Your task to perform on an android device: View the shopping cart on ebay. Add usb-c to usb-a to the cart on ebay, then select checkout. Image 0: 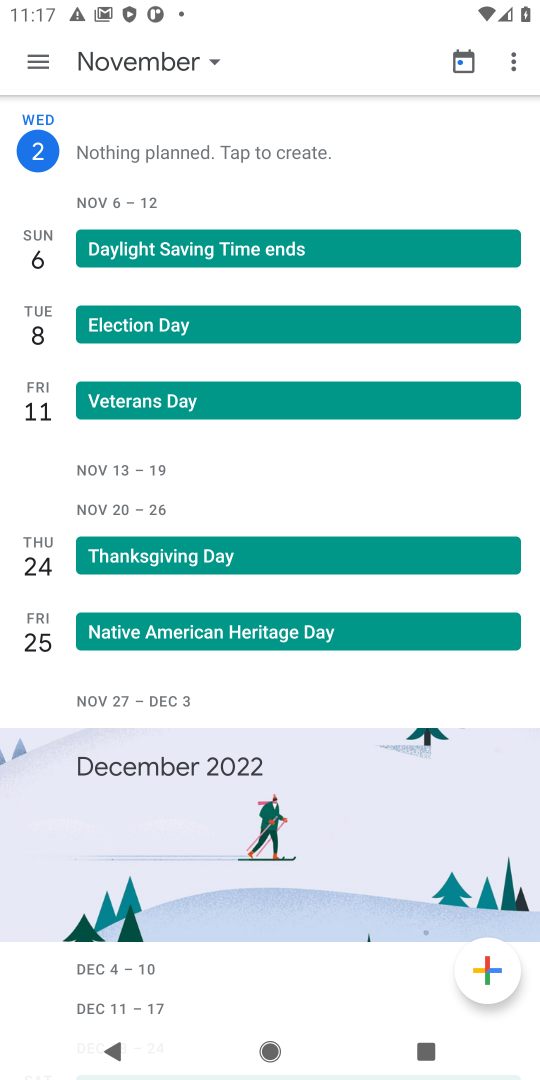
Step 0: press home button
Your task to perform on an android device: View the shopping cart on ebay. Add usb-c to usb-a to the cart on ebay, then select checkout. Image 1: 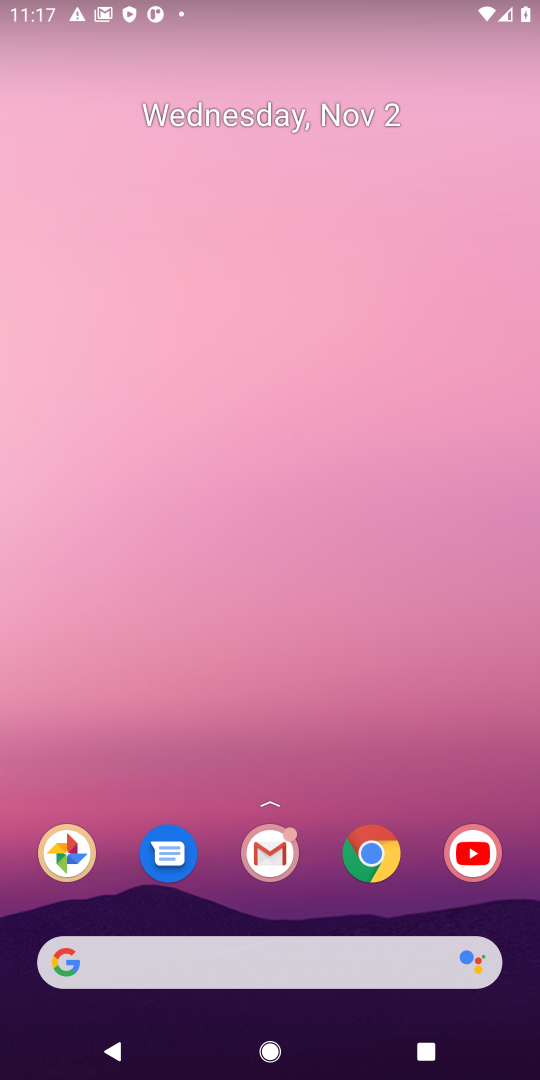
Step 1: click (379, 848)
Your task to perform on an android device: View the shopping cart on ebay. Add usb-c to usb-a to the cart on ebay, then select checkout. Image 2: 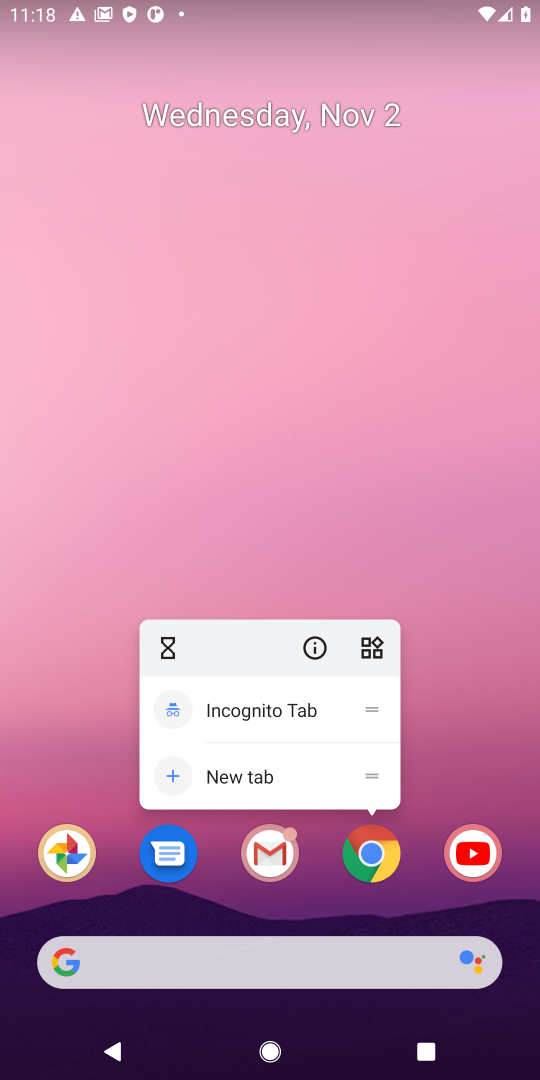
Step 2: click (369, 860)
Your task to perform on an android device: View the shopping cart on ebay. Add usb-c to usb-a to the cart on ebay, then select checkout. Image 3: 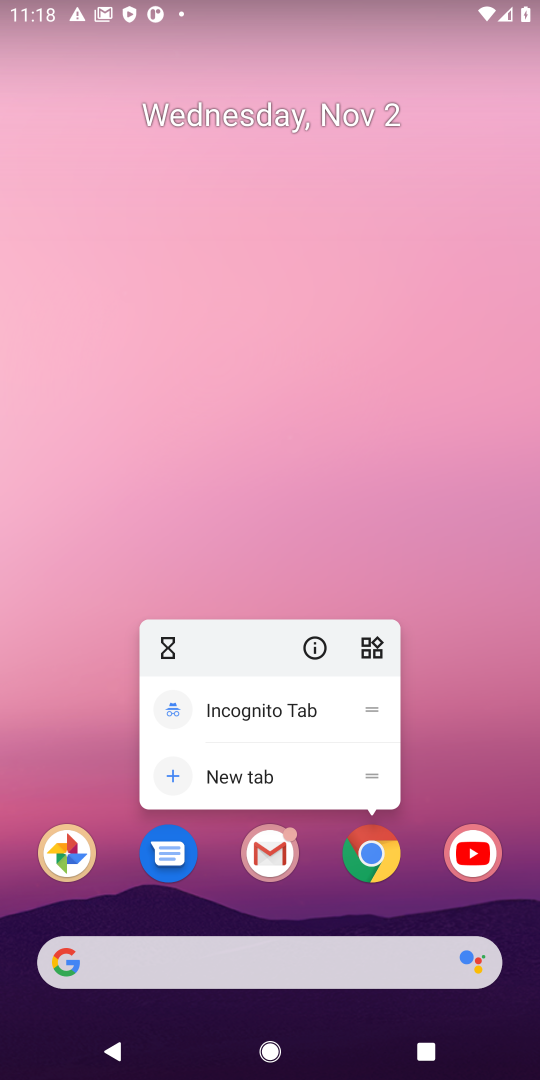
Step 3: click (369, 860)
Your task to perform on an android device: View the shopping cart on ebay. Add usb-c to usb-a to the cart on ebay, then select checkout. Image 4: 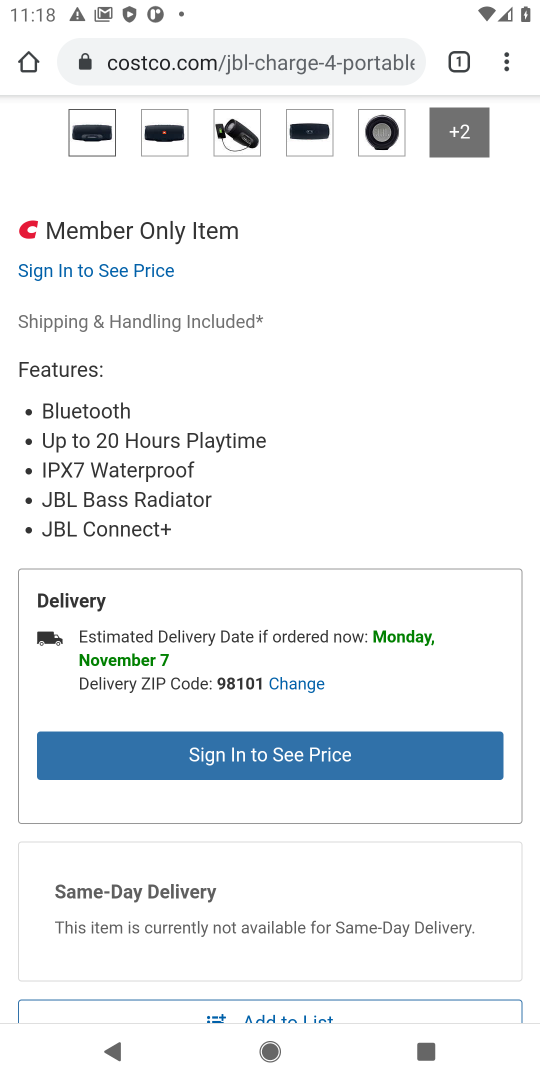
Step 4: click (294, 66)
Your task to perform on an android device: View the shopping cart on ebay. Add usb-c to usb-a to the cart on ebay, then select checkout. Image 5: 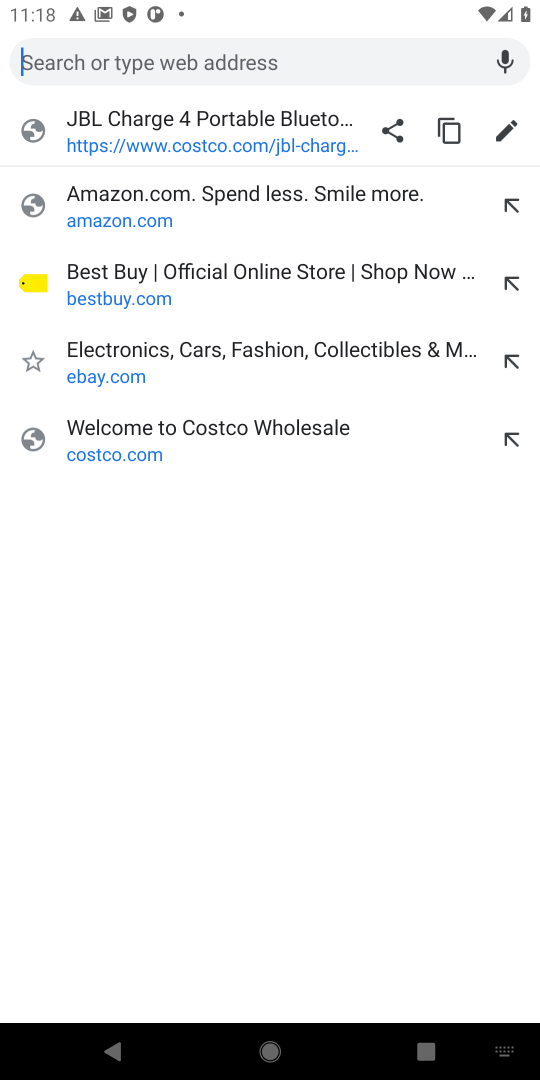
Step 5: click (91, 371)
Your task to perform on an android device: View the shopping cart on ebay. Add usb-c to usb-a to the cart on ebay, then select checkout. Image 6: 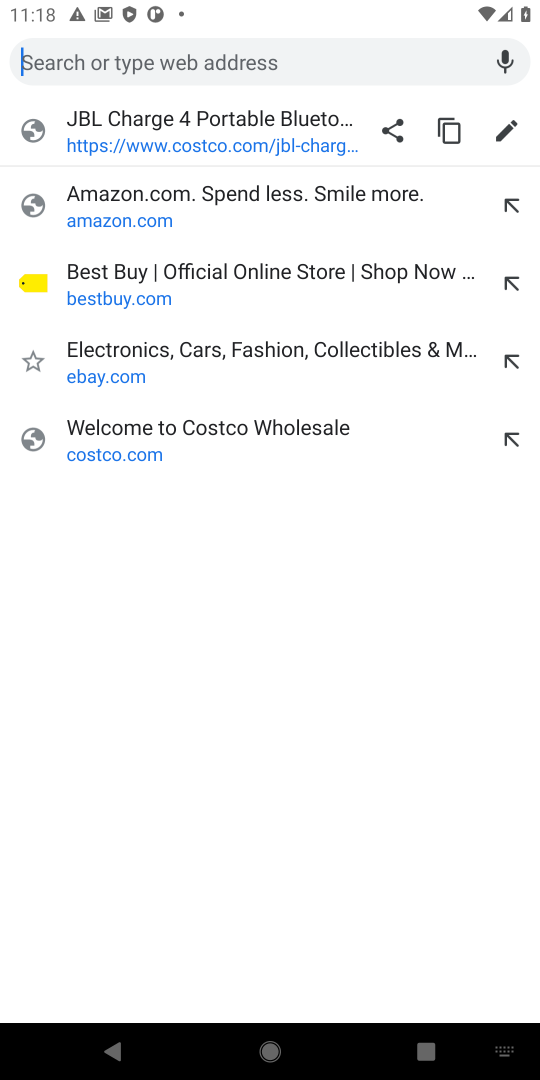
Step 6: click (125, 372)
Your task to perform on an android device: View the shopping cart on ebay. Add usb-c to usb-a to the cart on ebay, then select checkout. Image 7: 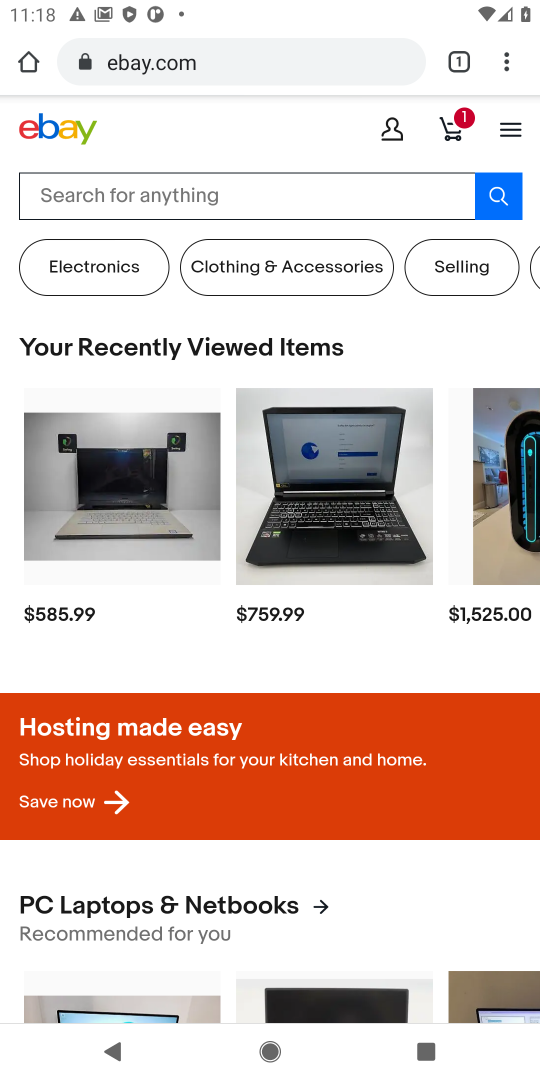
Step 7: click (98, 188)
Your task to perform on an android device: View the shopping cart on ebay. Add usb-c to usb-a to the cart on ebay, then select checkout. Image 8: 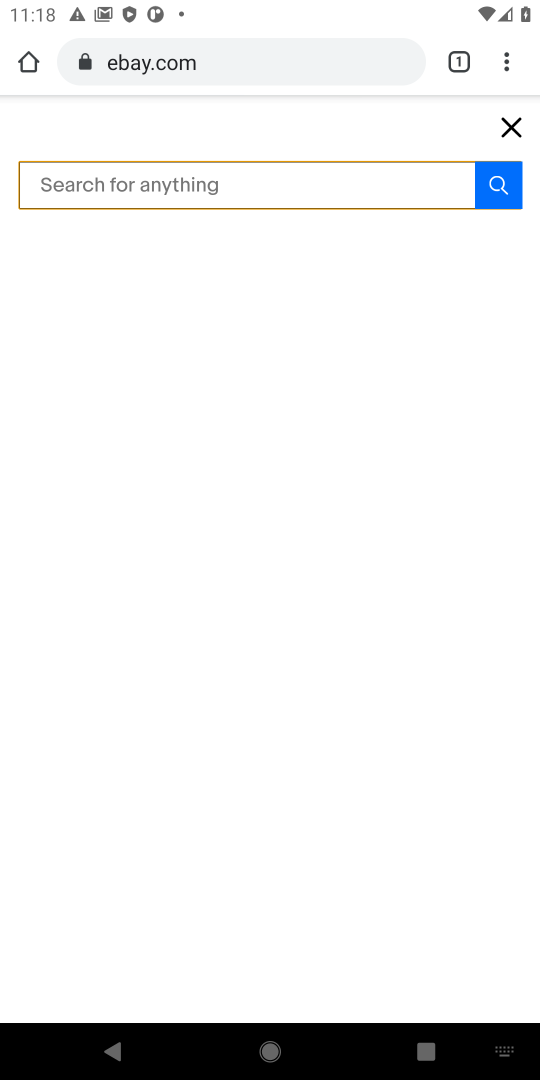
Step 8: type "usb-c to usb-a"
Your task to perform on an android device: View the shopping cart on ebay. Add usb-c to usb-a to the cart on ebay, then select checkout. Image 9: 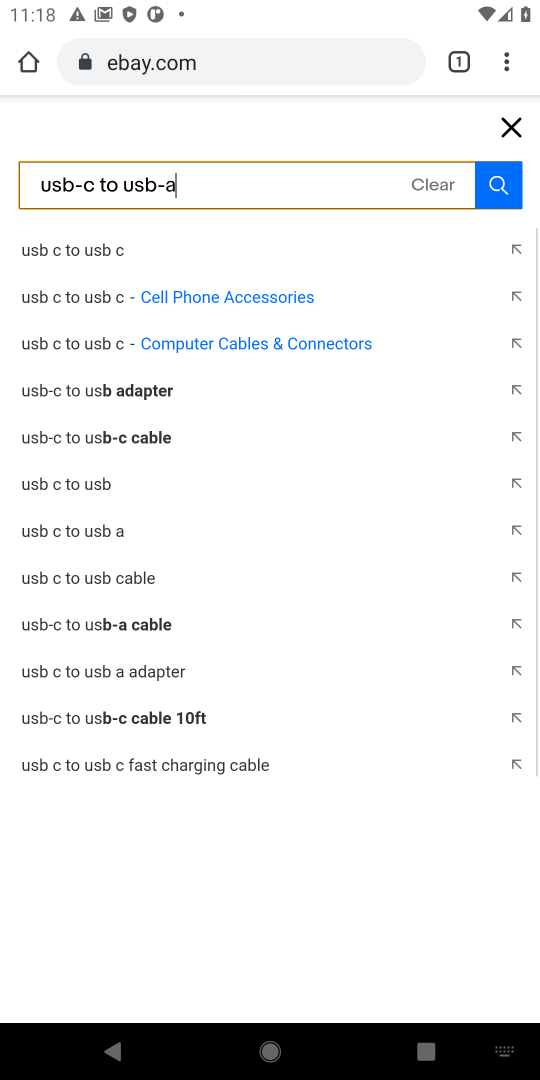
Step 9: press enter
Your task to perform on an android device: View the shopping cart on ebay. Add usb-c to usb-a to the cart on ebay, then select checkout. Image 10: 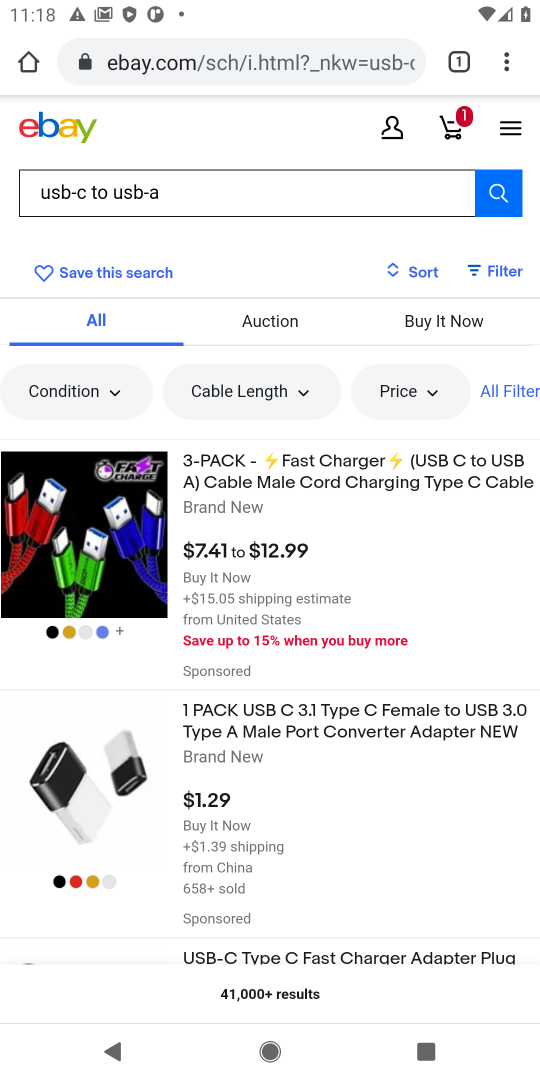
Step 10: click (306, 500)
Your task to perform on an android device: View the shopping cart on ebay. Add usb-c to usb-a to the cart on ebay, then select checkout. Image 11: 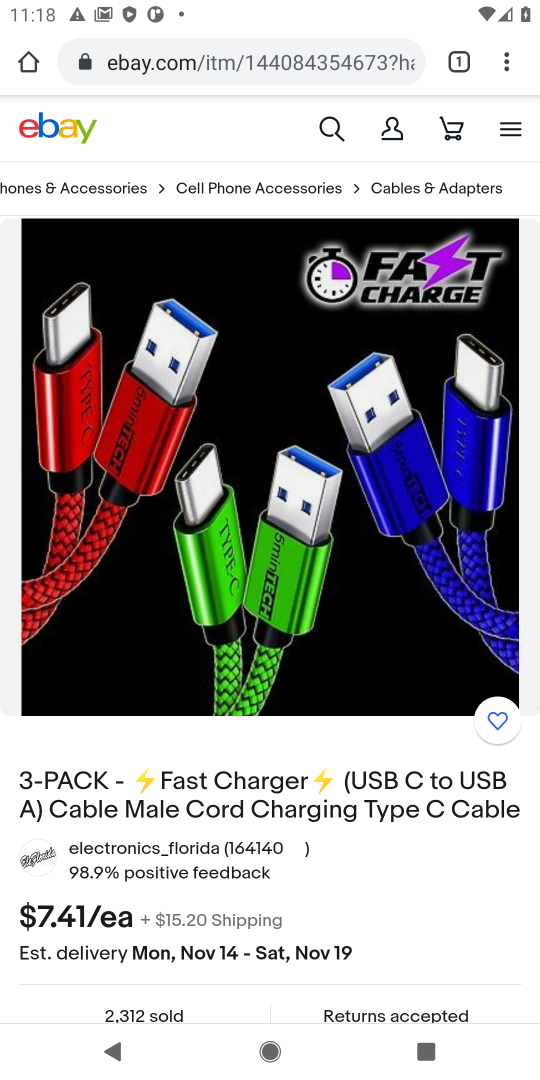
Step 11: drag from (335, 891) to (537, 295)
Your task to perform on an android device: View the shopping cart on ebay. Add usb-c to usb-a to the cart on ebay, then select checkout. Image 12: 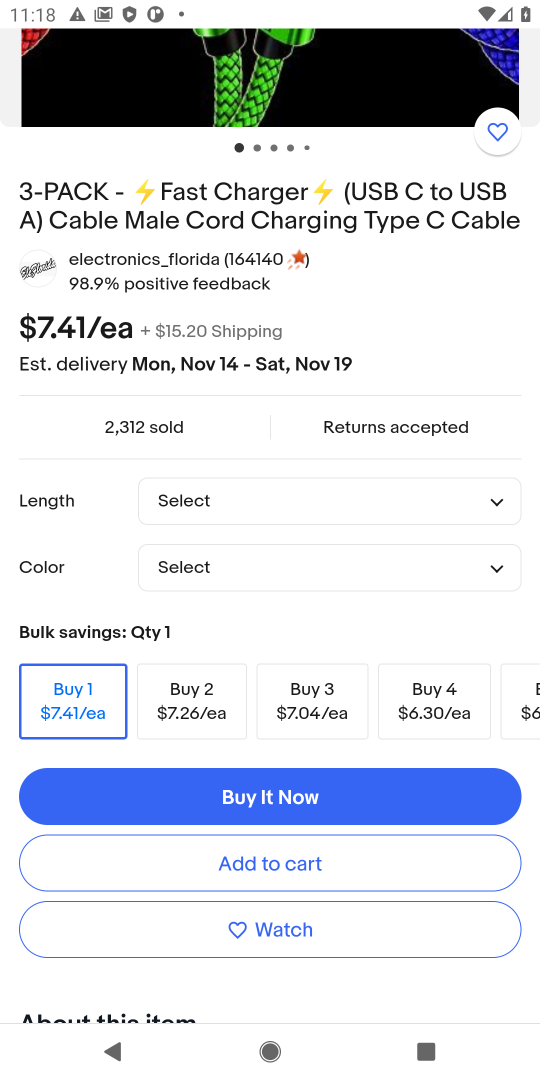
Step 12: drag from (237, 810) to (383, 176)
Your task to perform on an android device: View the shopping cart on ebay. Add usb-c to usb-a to the cart on ebay, then select checkout. Image 13: 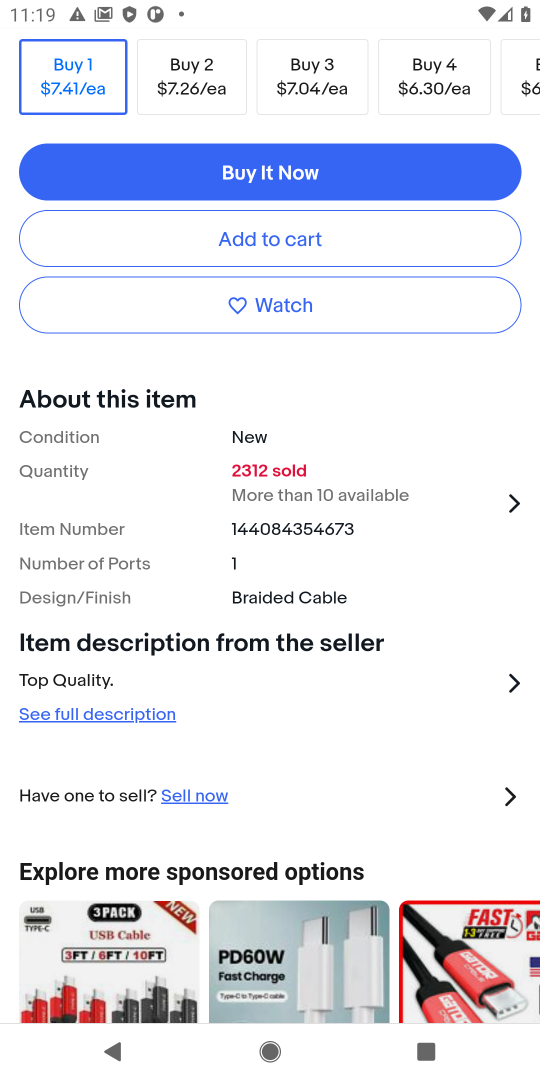
Step 13: click (271, 234)
Your task to perform on an android device: View the shopping cart on ebay. Add usb-c to usb-a to the cart on ebay, then select checkout. Image 14: 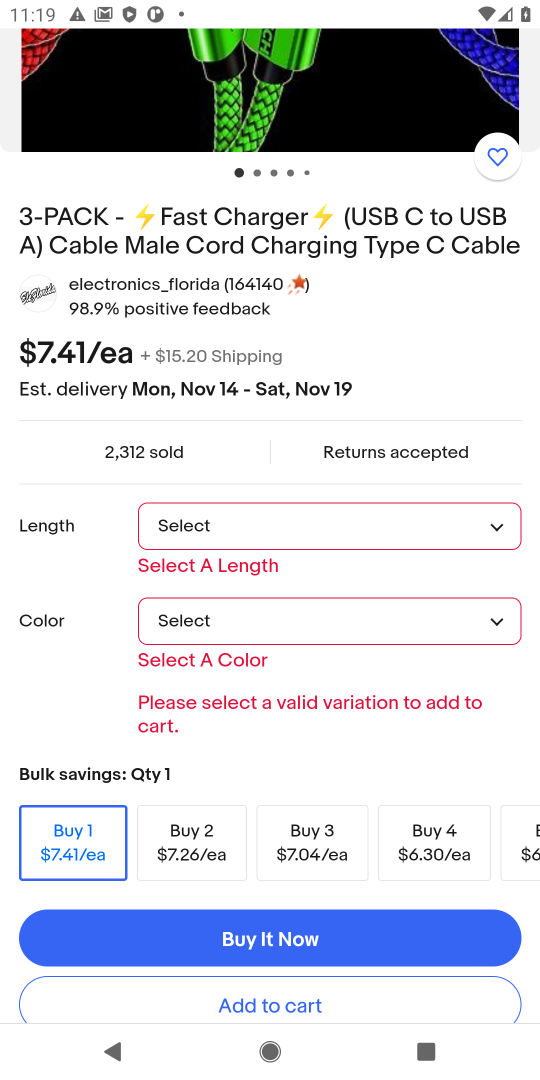
Step 14: click (498, 528)
Your task to perform on an android device: View the shopping cart on ebay. Add usb-c to usb-a to the cart on ebay, then select checkout. Image 15: 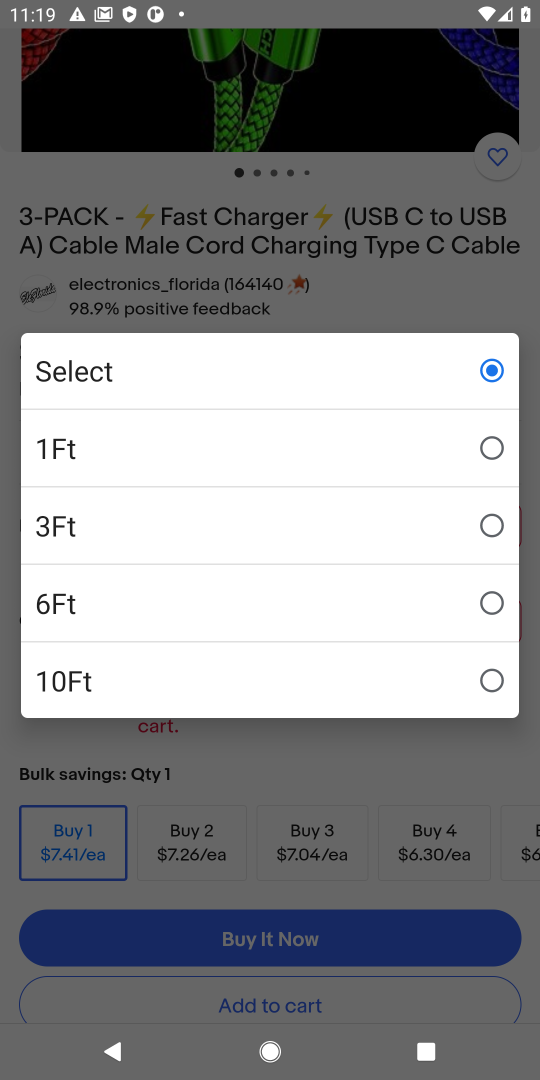
Step 15: click (493, 449)
Your task to perform on an android device: View the shopping cart on ebay. Add usb-c to usb-a to the cart on ebay, then select checkout. Image 16: 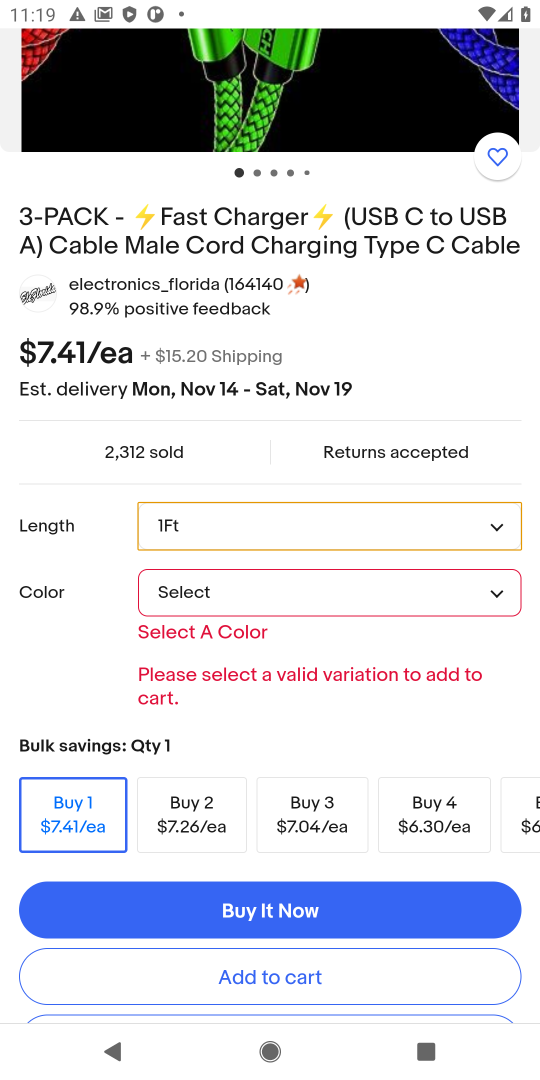
Step 16: click (495, 588)
Your task to perform on an android device: View the shopping cart on ebay. Add usb-c to usb-a to the cart on ebay, then select checkout. Image 17: 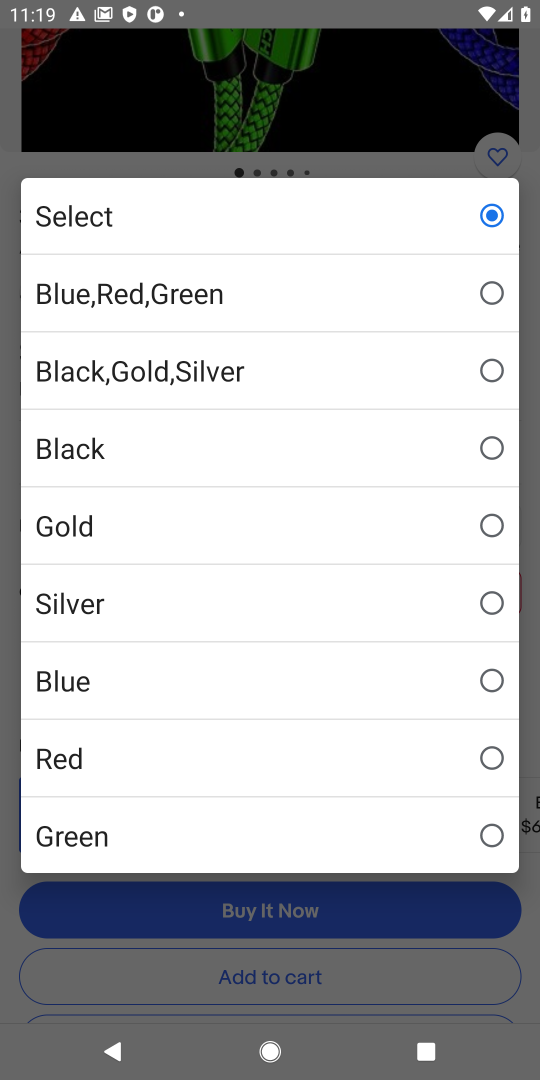
Step 17: click (497, 286)
Your task to perform on an android device: View the shopping cart on ebay. Add usb-c to usb-a to the cart on ebay, then select checkout. Image 18: 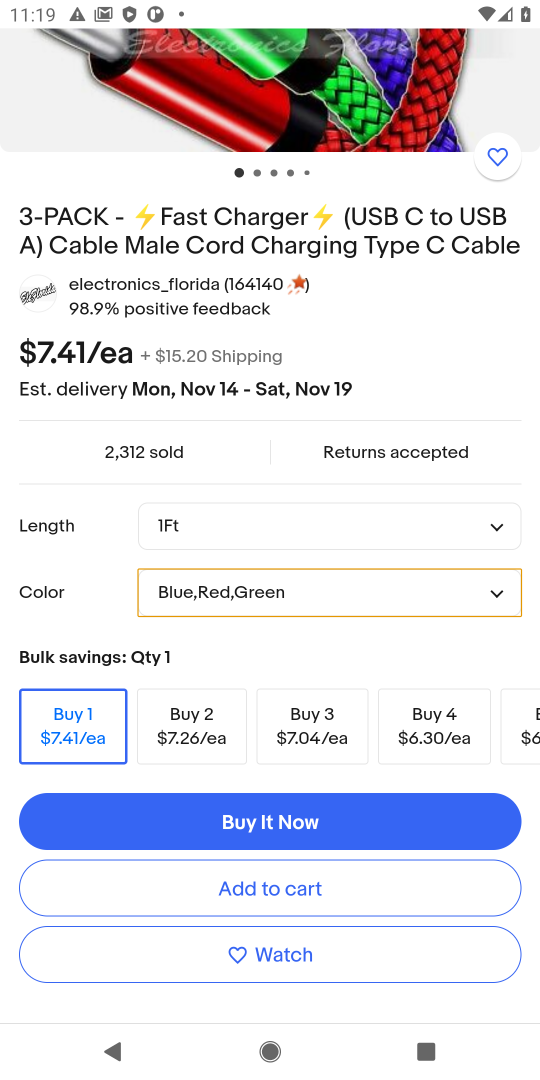
Step 18: click (244, 887)
Your task to perform on an android device: View the shopping cart on ebay. Add usb-c to usb-a to the cart on ebay, then select checkout. Image 19: 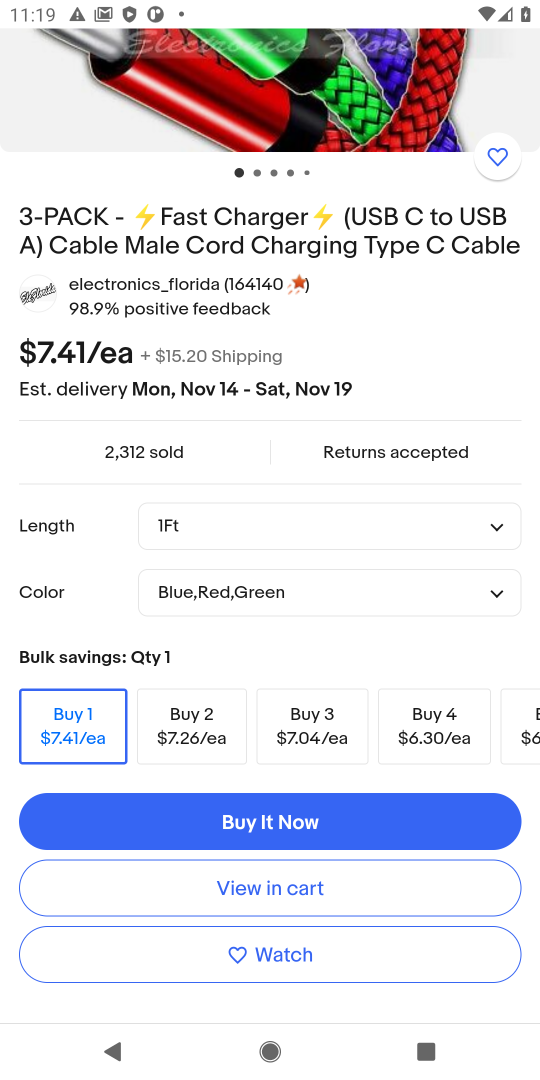
Step 19: click (292, 881)
Your task to perform on an android device: View the shopping cart on ebay. Add usb-c to usb-a to the cart on ebay, then select checkout. Image 20: 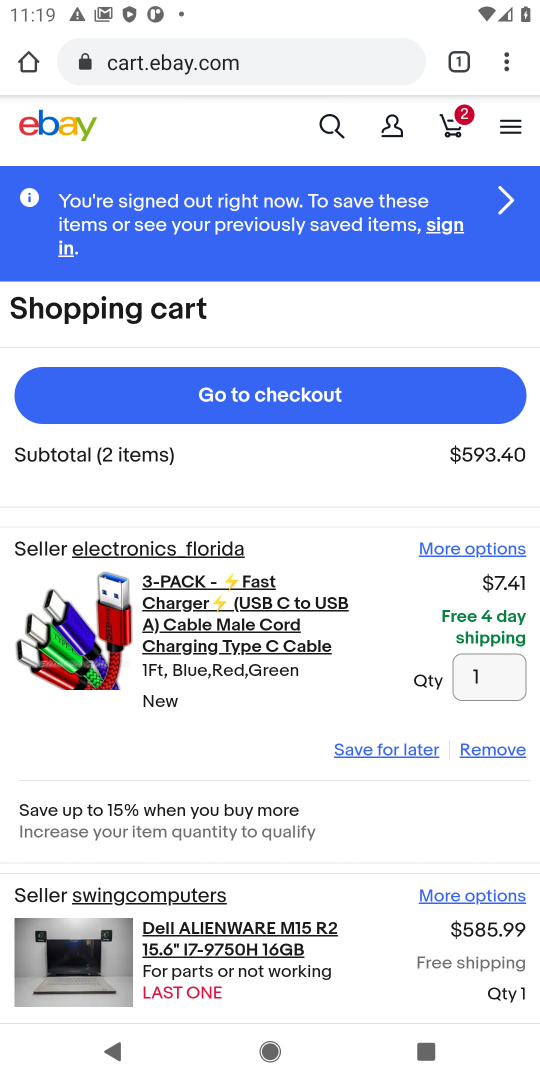
Step 20: drag from (462, 783) to (472, 718)
Your task to perform on an android device: View the shopping cart on ebay. Add usb-c to usb-a to the cart on ebay, then select checkout. Image 21: 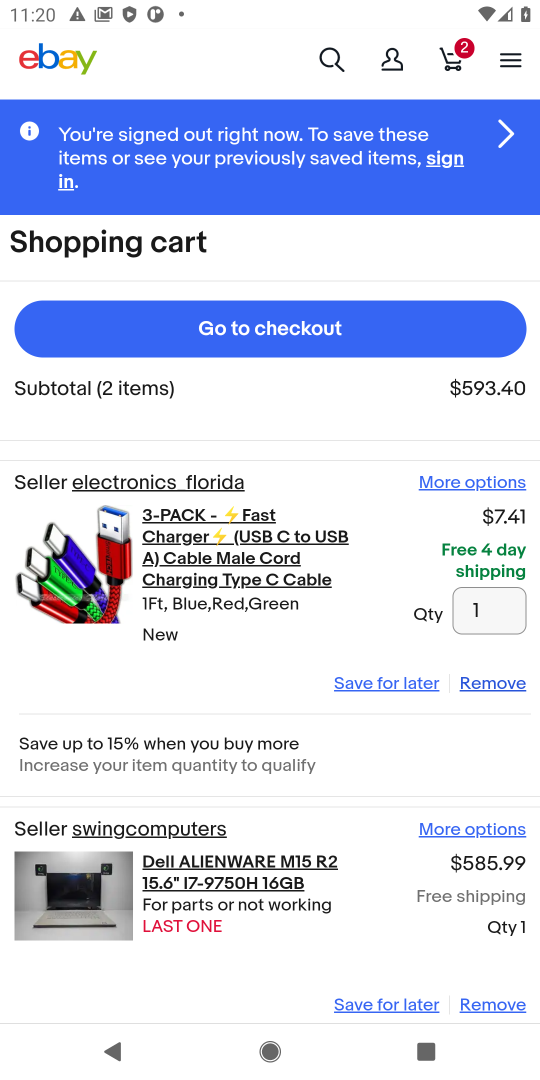
Step 21: click (476, 1003)
Your task to perform on an android device: View the shopping cart on ebay. Add usb-c to usb-a to the cart on ebay, then select checkout. Image 22: 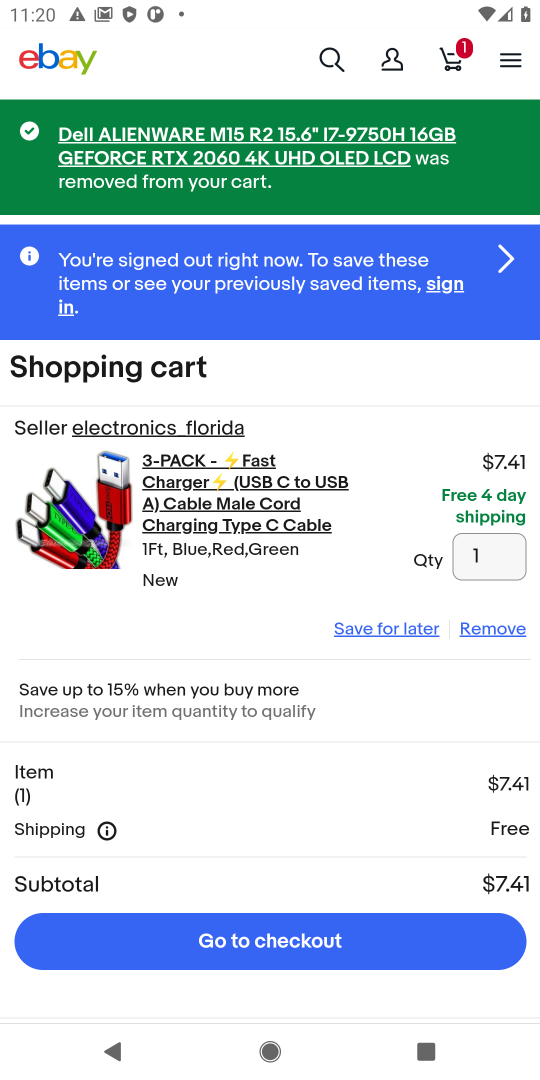
Step 22: click (265, 939)
Your task to perform on an android device: View the shopping cart on ebay. Add usb-c to usb-a to the cart on ebay, then select checkout. Image 23: 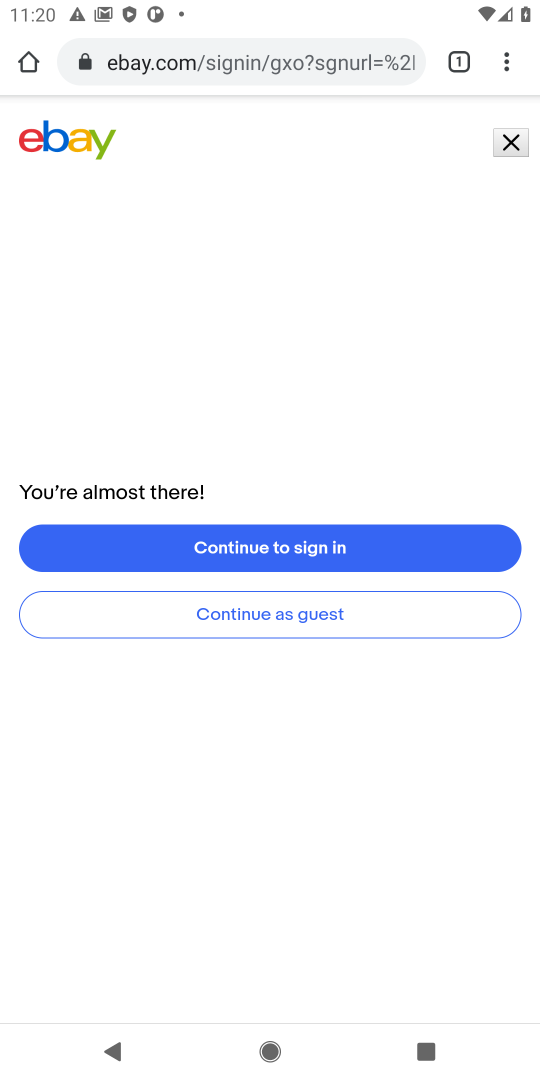
Step 23: task complete